Your task to perform on an android device: turn vacation reply on in the gmail app Image 0: 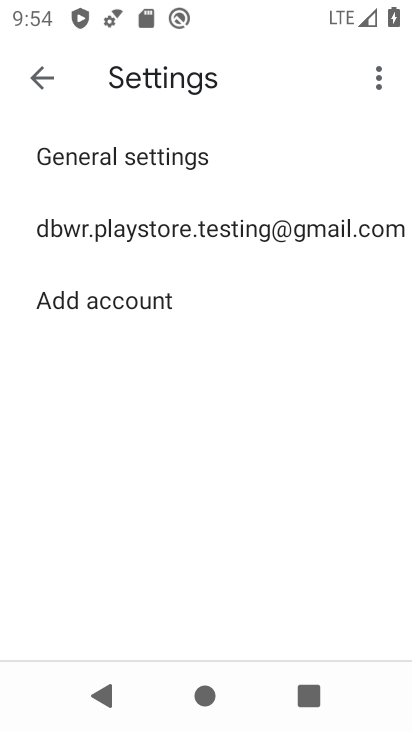
Step 0: drag from (146, 545) to (283, 167)
Your task to perform on an android device: turn vacation reply on in the gmail app Image 1: 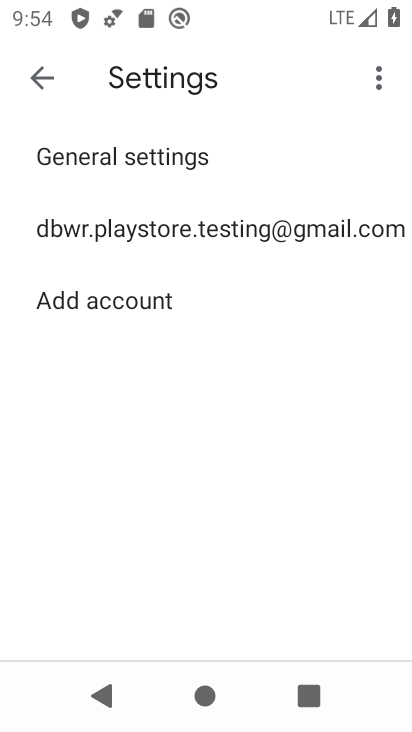
Step 1: click (186, 234)
Your task to perform on an android device: turn vacation reply on in the gmail app Image 2: 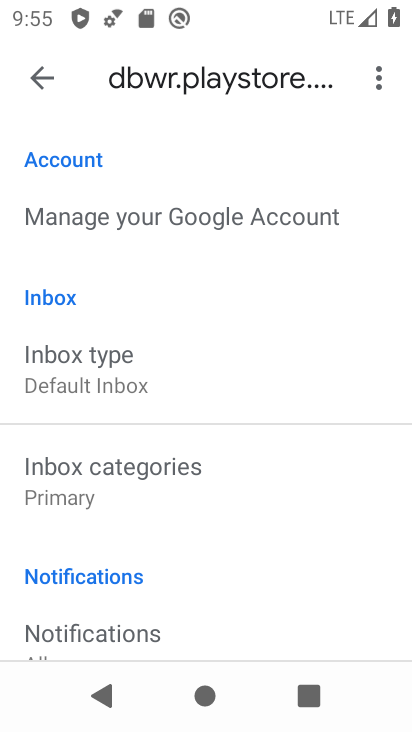
Step 2: drag from (202, 570) to (245, 209)
Your task to perform on an android device: turn vacation reply on in the gmail app Image 3: 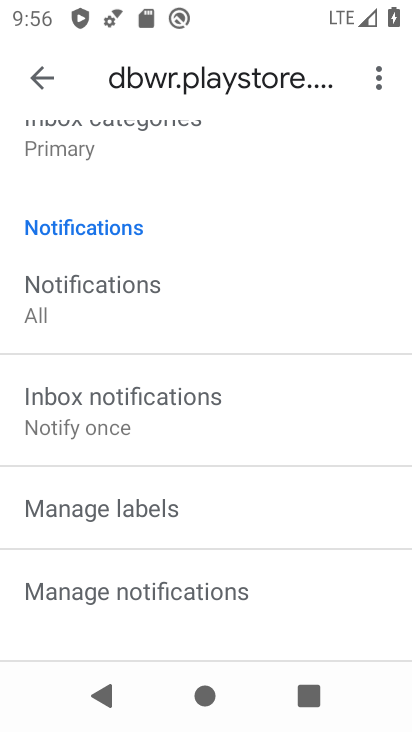
Step 3: drag from (197, 564) to (241, 391)
Your task to perform on an android device: turn vacation reply on in the gmail app Image 4: 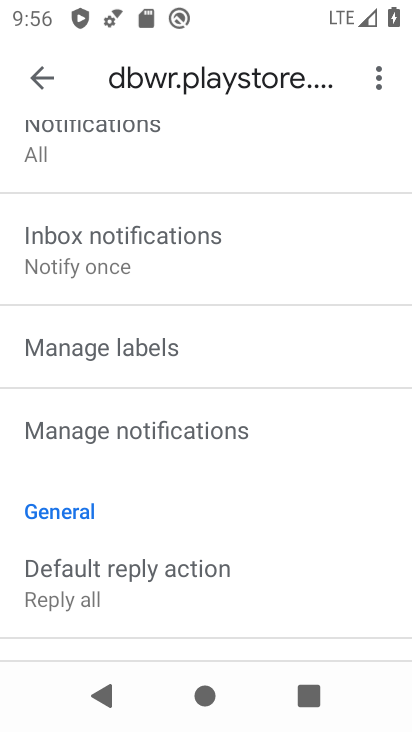
Step 4: drag from (149, 590) to (261, 457)
Your task to perform on an android device: turn vacation reply on in the gmail app Image 5: 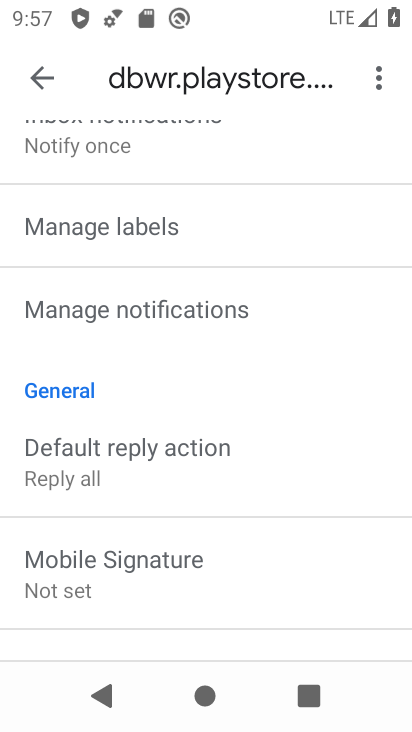
Step 5: drag from (194, 562) to (411, 50)
Your task to perform on an android device: turn vacation reply on in the gmail app Image 6: 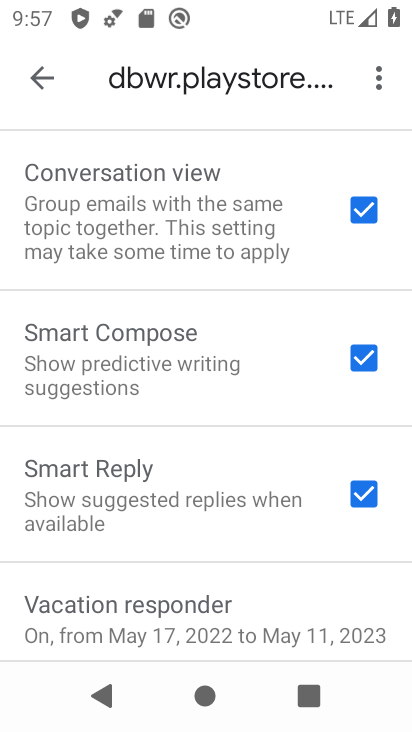
Step 6: click (175, 604)
Your task to perform on an android device: turn vacation reply on in the gmail app Image 7: 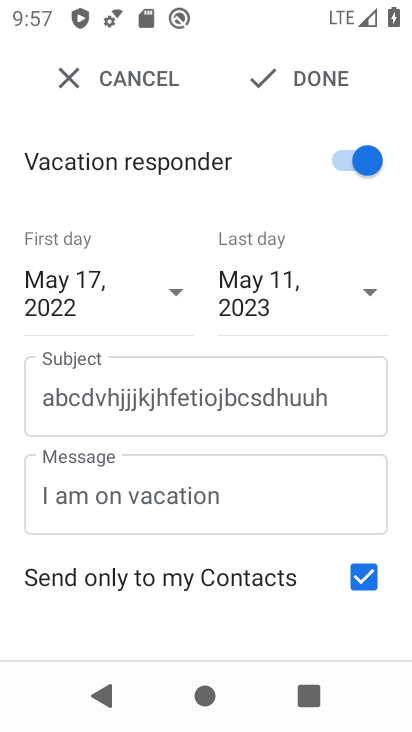
Step 7: click (301, 94)
Your task to perform on an android device: turn vacation reply on in the gmail app Image 8: 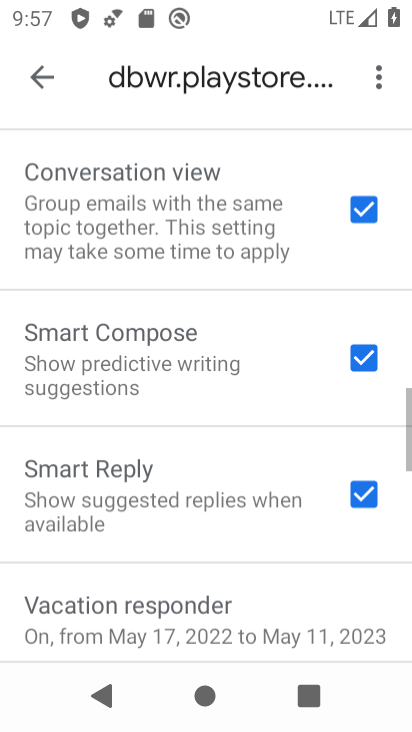
Step 8: task complete